Your task to perform on an android device: toggle notification dots Image 0: 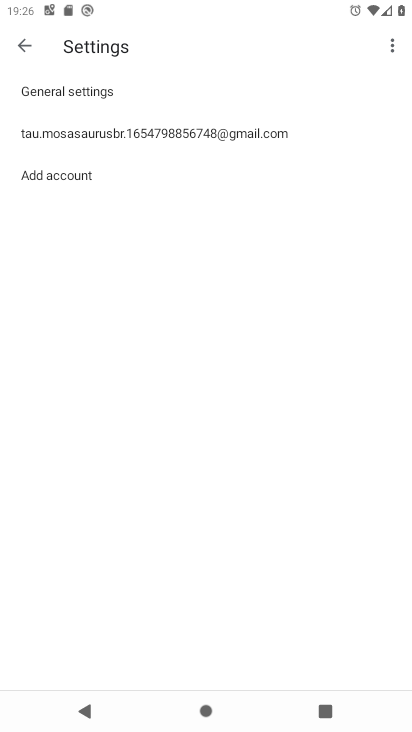
Step 0: press home button
Your task to perform on an android device: toggle notification dots Image 1: 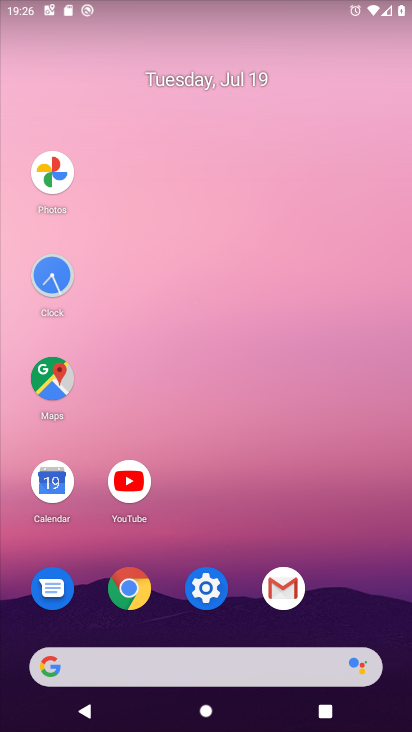
Step 1: click (209, 591)
Your task to perform on an android device: toggle notification dots Image 2: 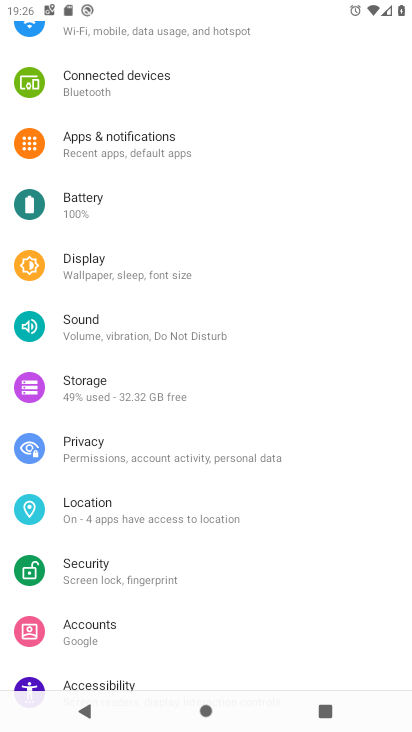
Step 2: click (136, 139)
Your task to perform on an android device: toggle notification dots Image 3: 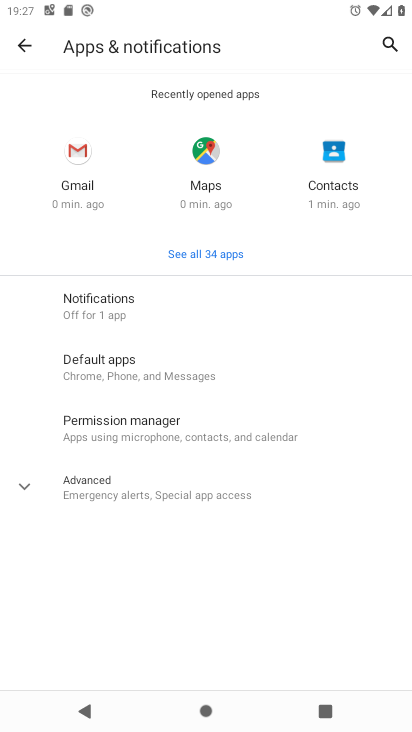
Step 3: click (90, 298)
Your task to perform on an android device: toggle notification dots Image 4: 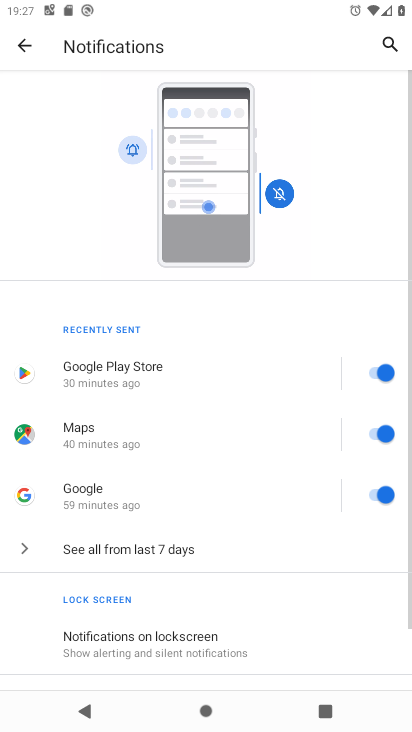
Step 4: drag from (255, 582) to (225, 299)
Your task to perform on an android device: toggle notification dots Image 5: 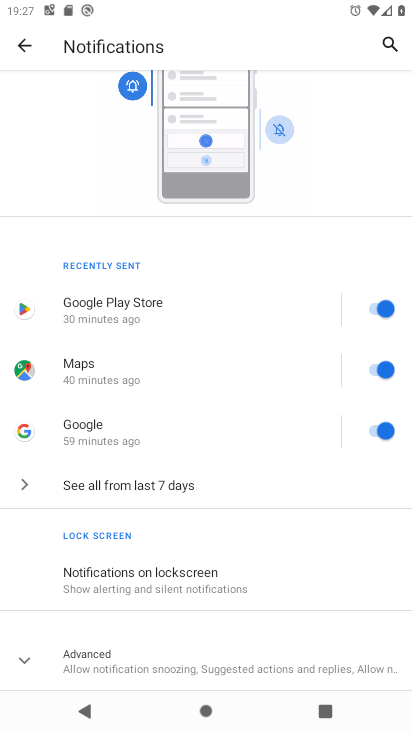
Step 5: click (22, 660)
Your task to perform on an android device: toggle notification dots Image 6: 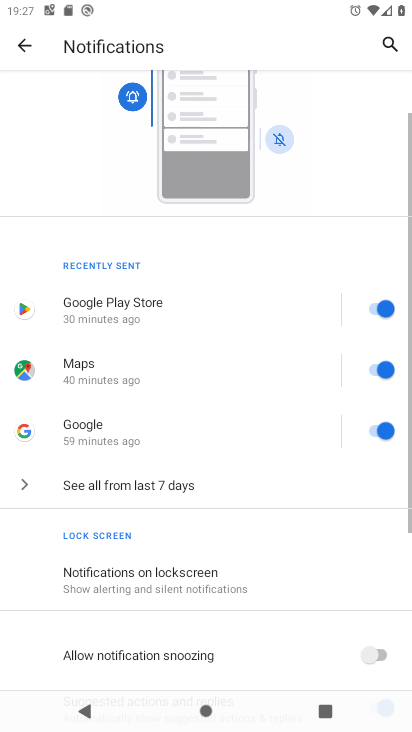
Step 6: drag from (272, 599) to (243, 354)
Your task to perform on an android device: toggle notification dots Image 7: 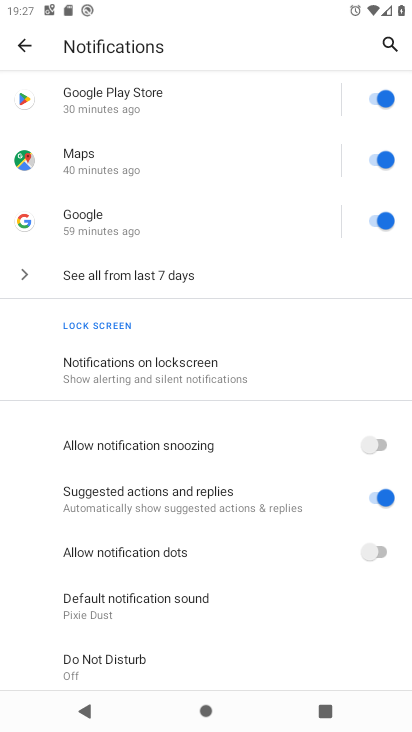
Step 7: click (377, 549)
Your task to perform on an android device: toggle notification dots Image 8: 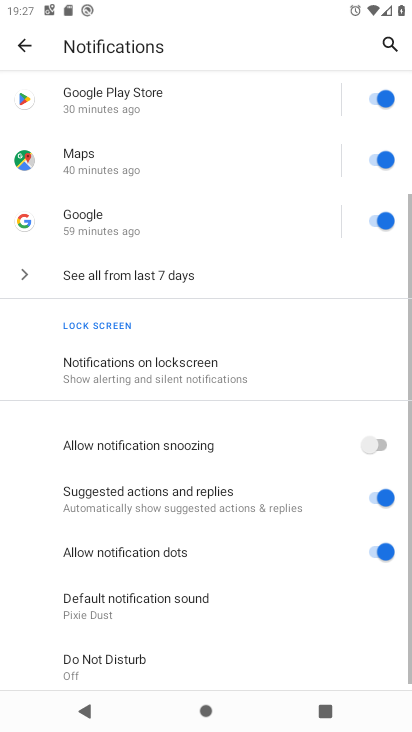
Step 8: task complete